Your task to perform on an android device: visit the assistant section in the google photos Image 0: 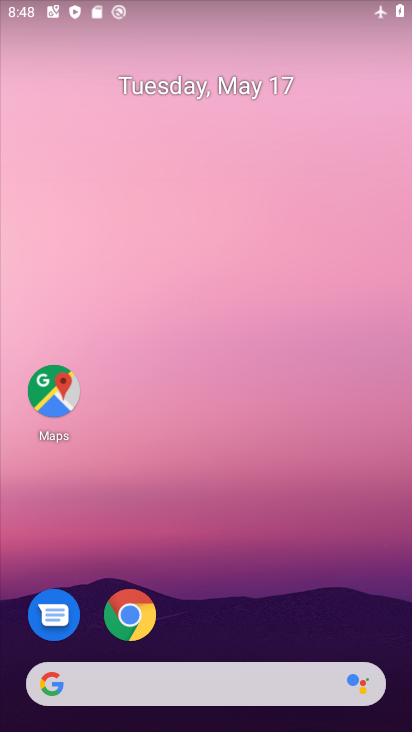
Step 0: drag from (189, 610) to (272, 248)
Your task to perform on an android device: visit the assistant section in the google photos Image 1: 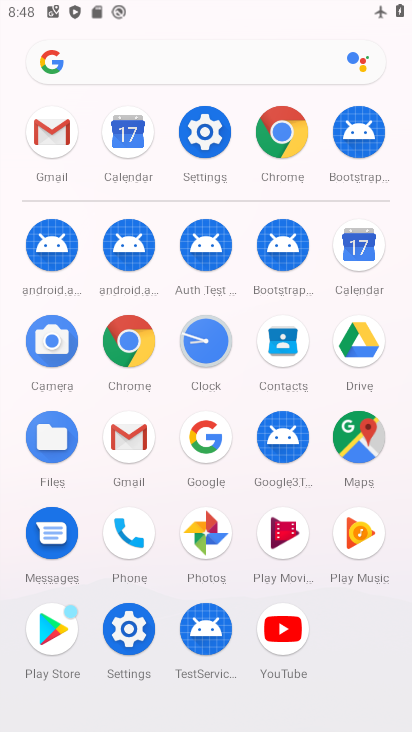
Step 1: click (209, 516)
Your task to perform on an android device: visit the assistant section in the google photos Image 2: 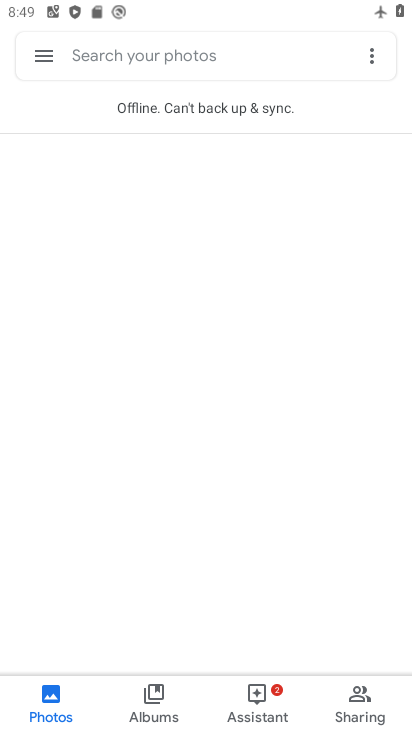
Step 2: click (250, 703)
Your task to perform on an android device: visit the assistant section in the google photos Image 3: 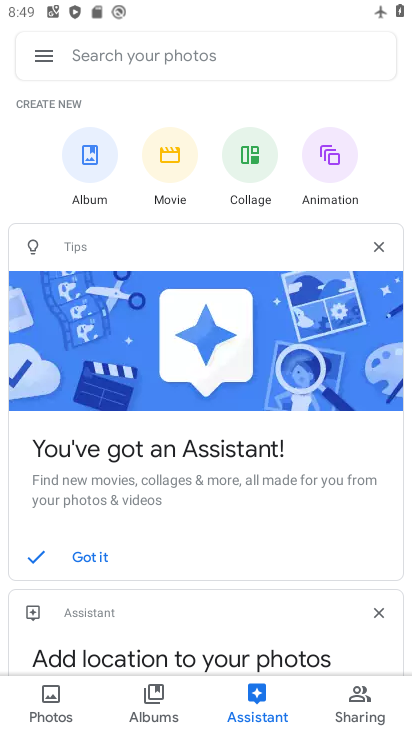
Step 3: task complete